Your task to perform on an android device: Open privacy settings Image 0: 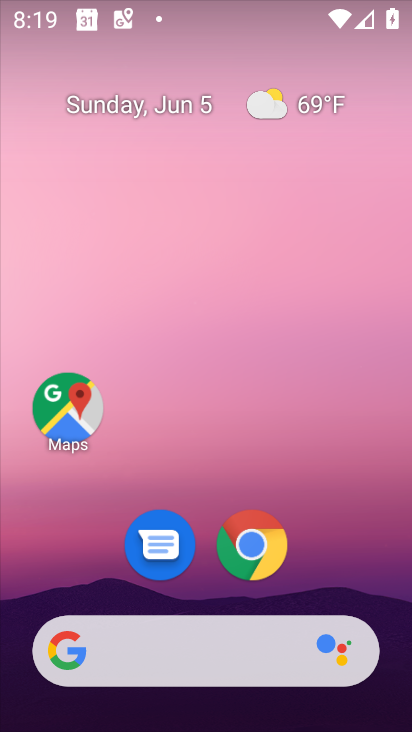
Step 0: drag from (380, 574) to (384, 170)
Your task to perform on an android device: Open privacy settings Image 1: 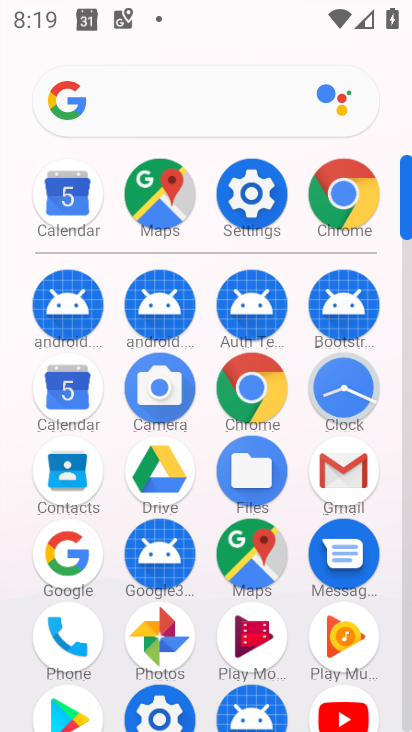
Step 1: click (261, 212)
Your task to perform on an android device: Open privacy settings Image 2: 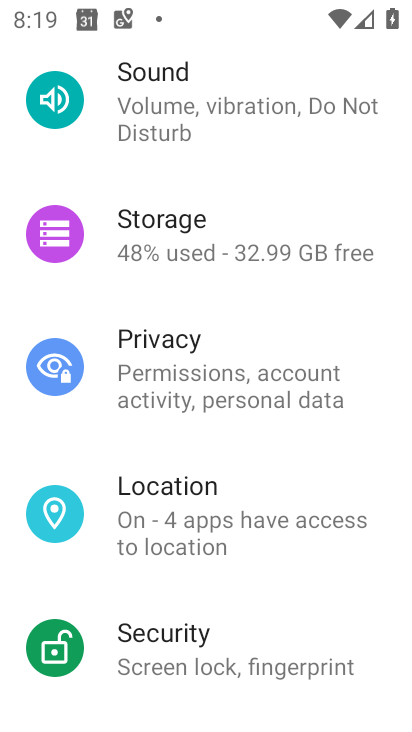
Step 2: drag from (337, 189) to (346, 308)
Your task to perform on an android device: Open privacy settings Image 3: 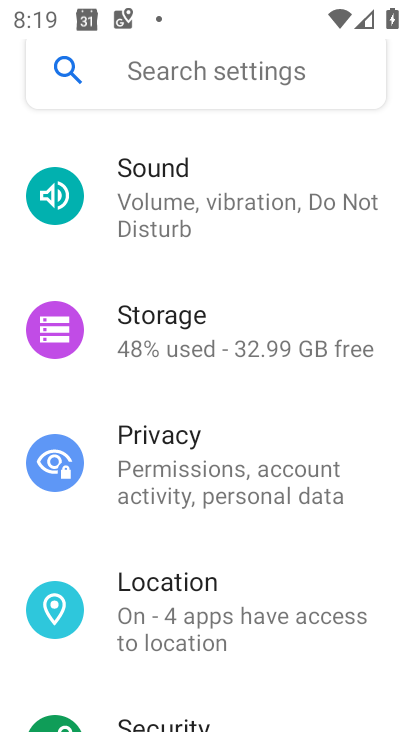
Step 3: drag from (372, 151) to (381, 299)
Your task to perform on an android device: Open privacy settings Image 4: 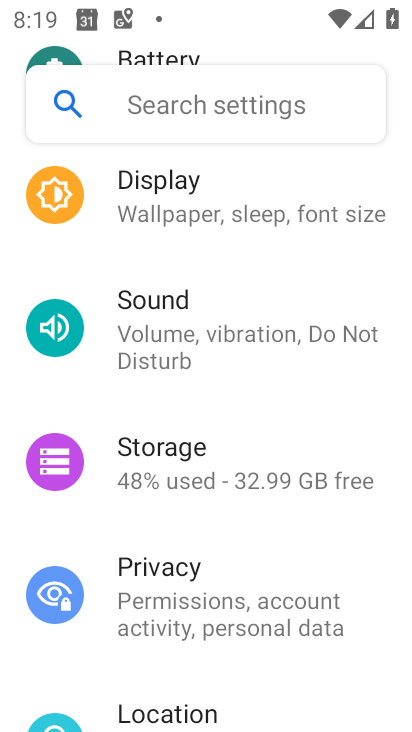
Step 4: drag from (390, 163) to (393, 290)
Your task to perform on an android device: Open privacy settings Image 5: 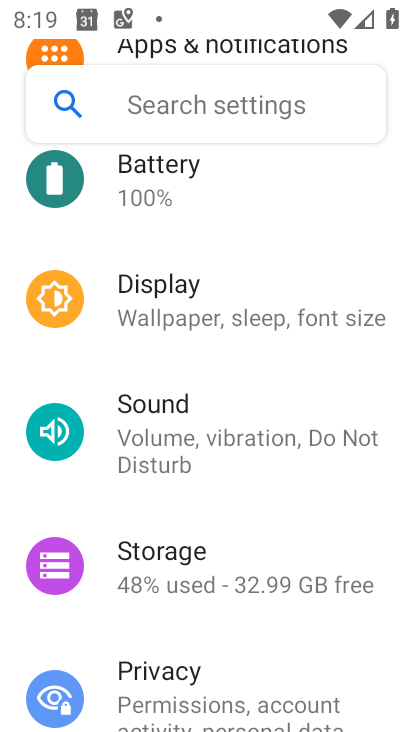
Step 5: drag from (369, 187) to (369, 297)
Your task to perform on an android device: Open privacy settings Image 6: 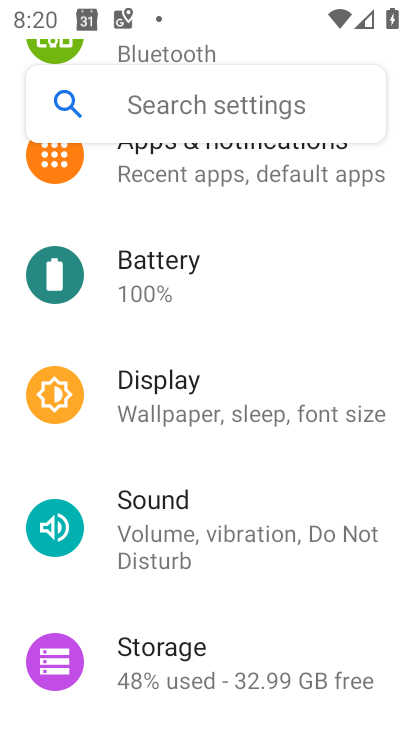
Step 6: drag from (366, 220) to (357, 340)
Your task to perform on an android device: Open privacy settings Image 7: 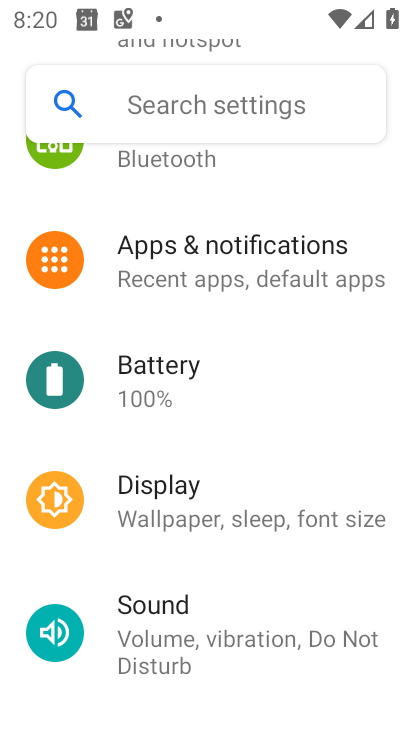
Step 7: drag from (355, 184) to (353, 327)
Your task to perform on an android device: Open privacy settings Image 8: 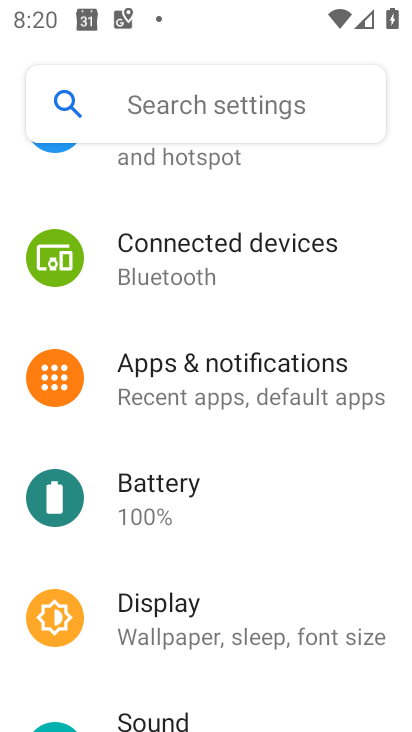
Step 8: drag from (359, 194) to (374, 364)
Your task to perform on an android device: Open privacy settings Image 9: 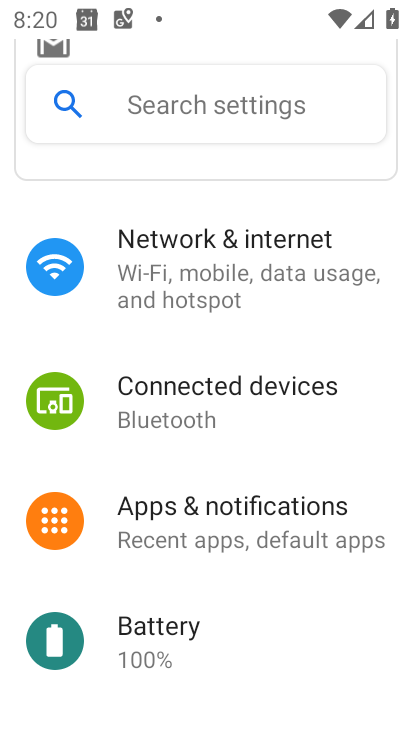
Step 9: drag from (373, 423) to (367, 261)
Your task to perform on an android device: Open privacy settings Image 10: 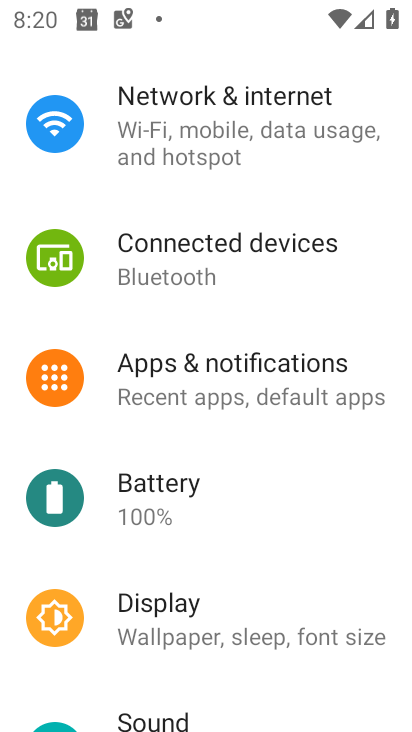
Step 10: drag from (360, 443) to (369, 287)
Your task to perform on an android device: Open privacy settings Image 11: 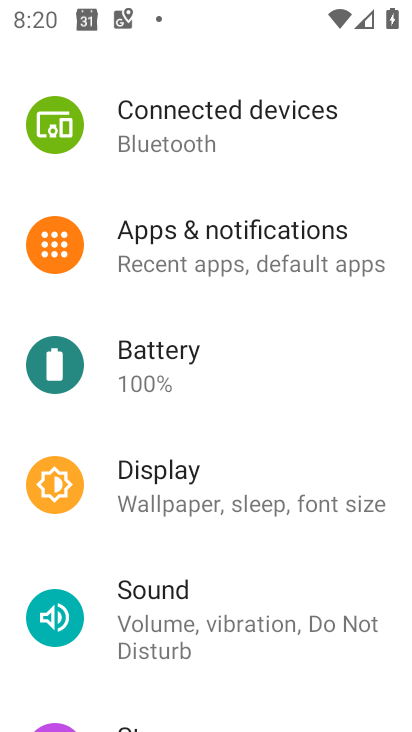
Step 11: drag from (346, 416) to (343, 260)
Your task to perform on an android device: Open privacy settings Image 12: 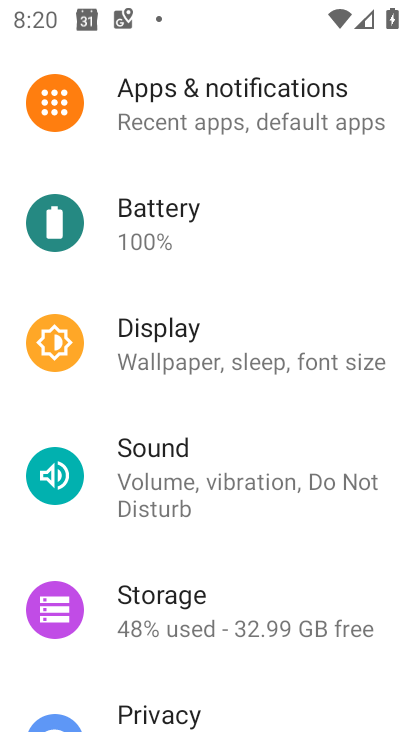
Step 12: drag from (355, 418) to (346, 272)
Your task to perform on an android device: Open privacy settings Image 13: 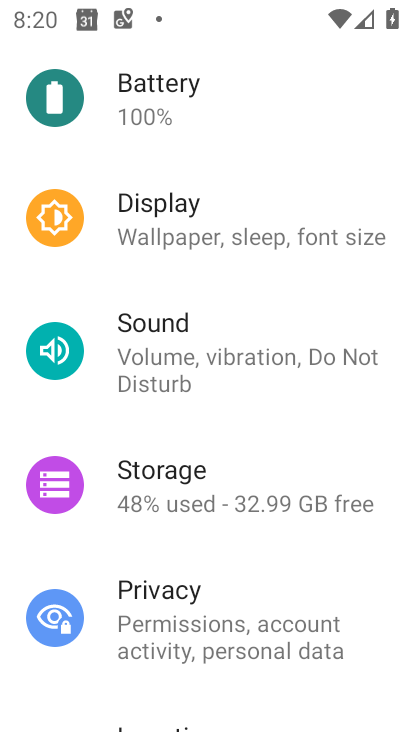
Step 13: drag from (347, 419) to (337, 271)
Your task to perform on an android device: Open privacy settings Image 14: 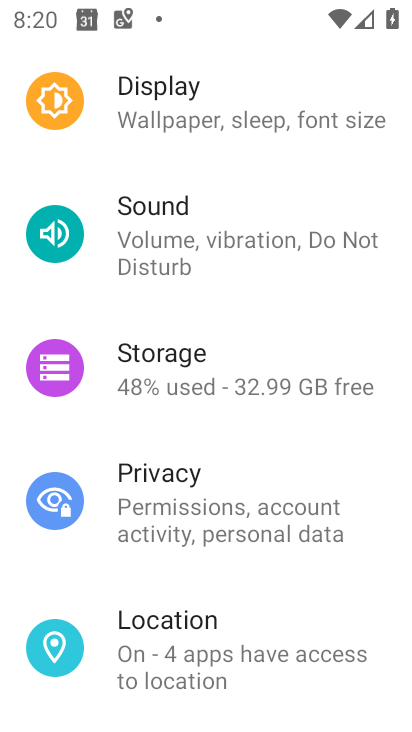
Step 14: drag from (308, 433) to (320, 293)
Your task to perform on an android device: Open privacy settings Image 15: 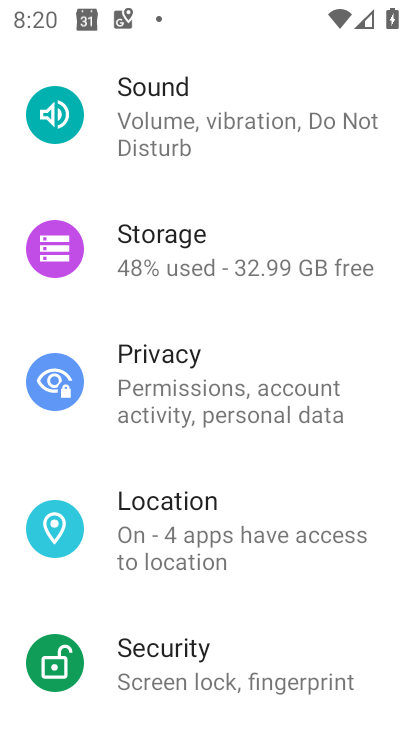
Step 15: click (307, 407)
Your task to perform on an android device: Open privacy settings Image 16: 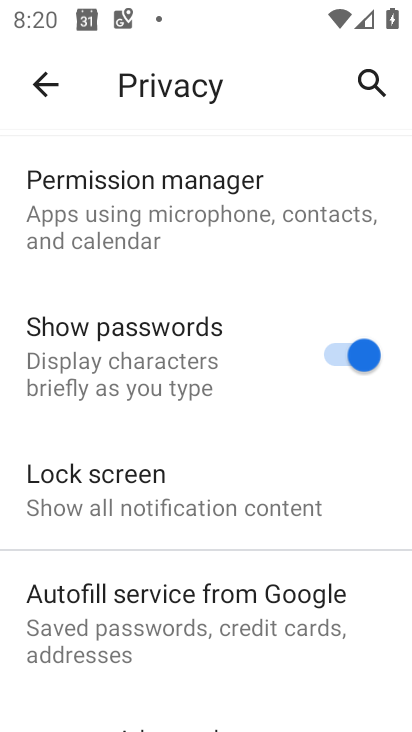
Step 16: task complete